Your task to perform on an android device: turn on translation in the chrome app Image 0: 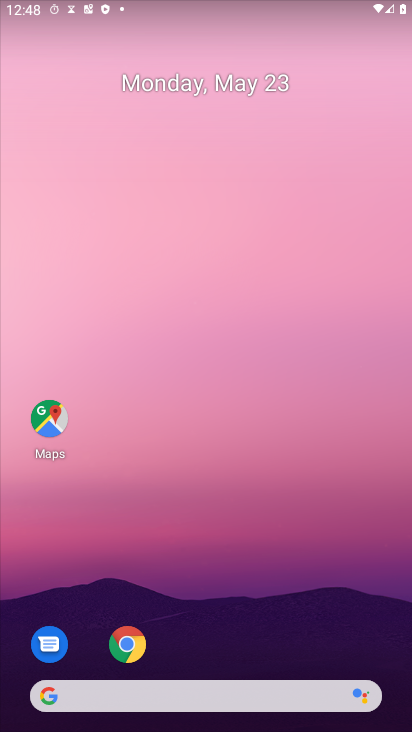
Step 0: click (131, 646)
Your task to perform on an android device: turn on translation in the chrome app Image 1: 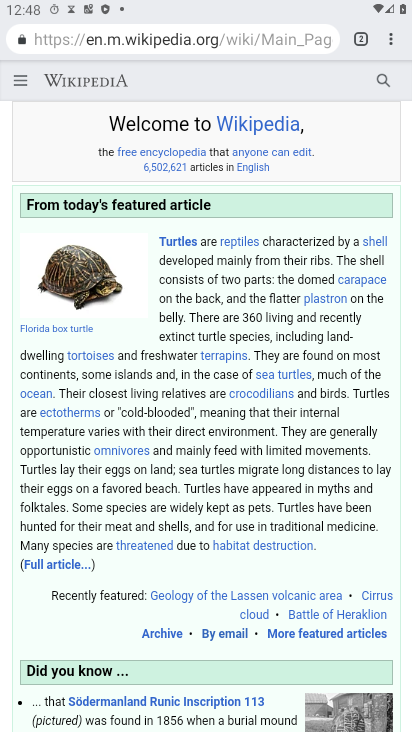
Step 1: click (398, 39)
Your task to perform on an android device: turn on translation in the chrome app Image 2: 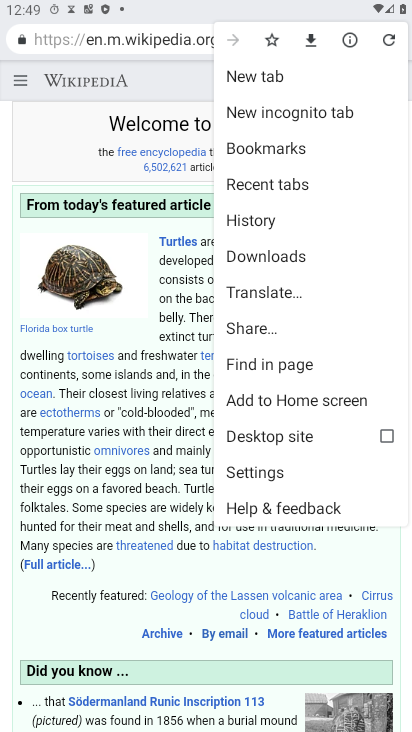
Step 2: click (265, 476)
Your task to perform on an android device: turn on translation in the chrome app Image 3: 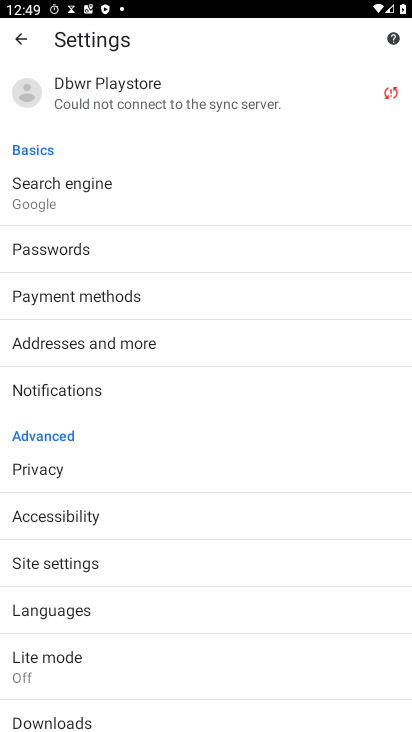
Step 3: click (126, 615)
Your task to perform on an android device: turn on translation in the chrome app Image 4: 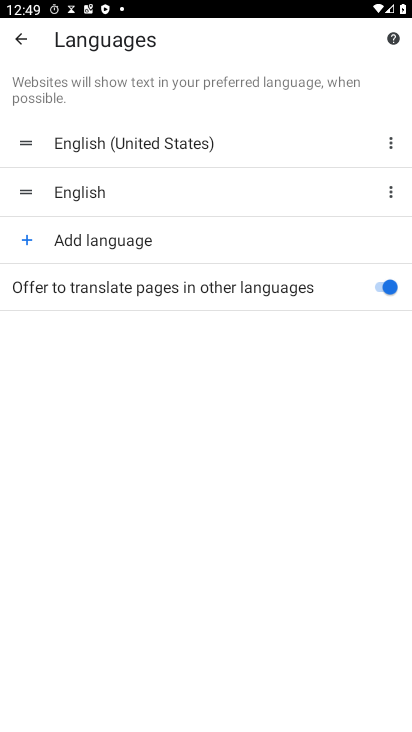
Step 4: task complete